Your task to perform on an android device: Search for the best rated TV on Target Image 0: 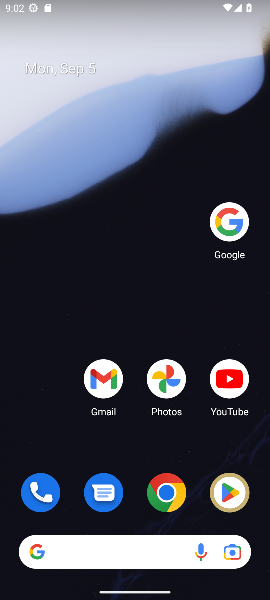
Step 0: click (219, 224)
Your task to perform on an android device: Search for the best rated TV on Target Image 1: 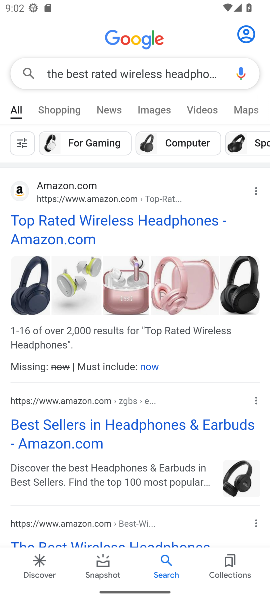
Step 1: click (184, 71)
Your task to perform on an android device: Search for the best rated TV on Target Image 2: 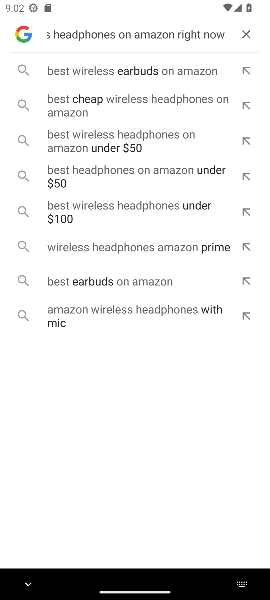
Step 2: click (252, 32)
Your task to perform on an android device: Search for the best rated TV on Target Image 3: 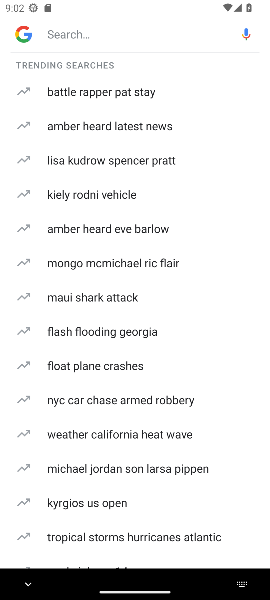
Step 3: click (122, 15)
Your task to perform on an android device: Search for the best rated TV on Target Image 4: 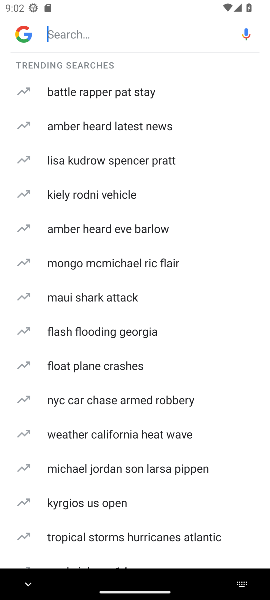
Step 4: type "the best rated TV on Target "
Your task to perform on an android device: Search for the best rated TV on Target Image 5: 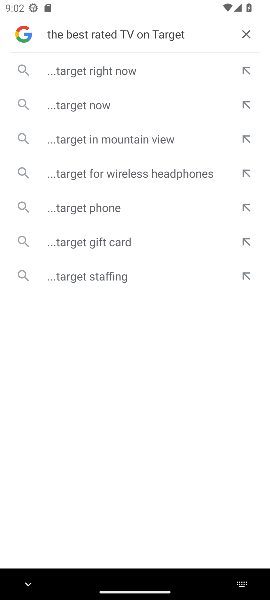
Step 5: click (94, 115)
Your task to perform on an android device: Search for the best rated TV on Target Image 6: 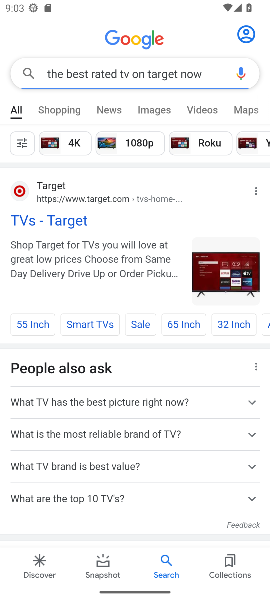
Step 6: click (65, 216)
Your task to perform on an android device: Search for the best rated TV on Target Image 7: 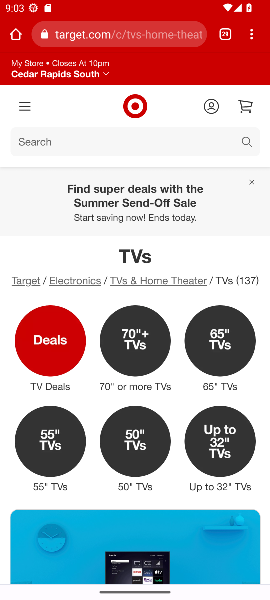
Step 7: task complete